Your task to perform on an android device: change alarm snooze length Image 0: 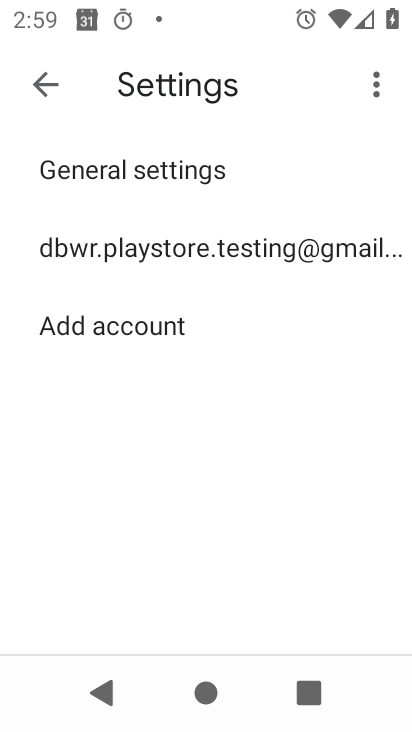
Step 0: press home button
Your task to perform on an android device: change alarm snooze length Image 1: 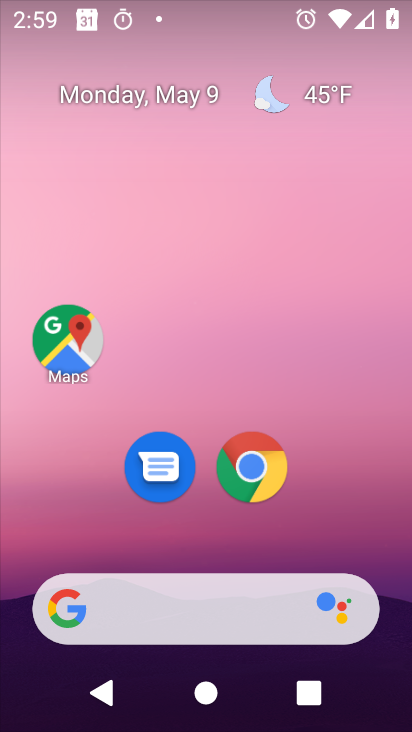
Step 1: drag from (342, 487) to (281, 81)
Your task to perform on an android device: change alarm snooze length Image 2: 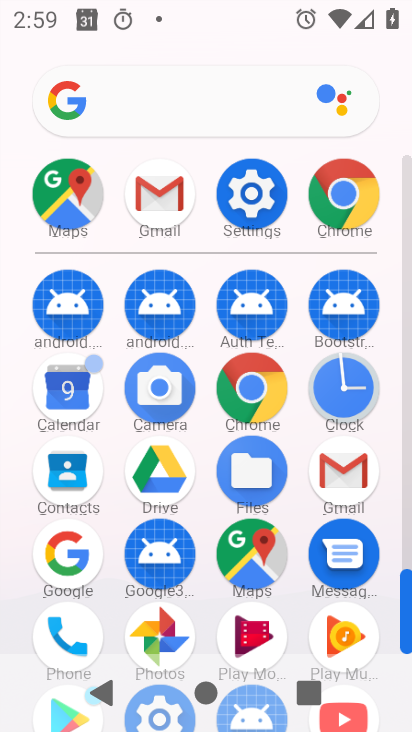
Step 2: click (330, 381)
Your task to perform on an android device: change alarm snooze length Image 3: 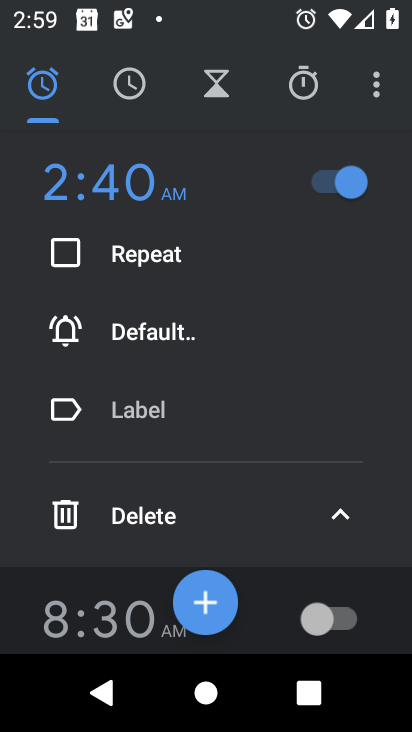
Step 3: drag from (381, 90) to (332, 116)
Your task to perform on an android device: change alarm snooze length Image 4: 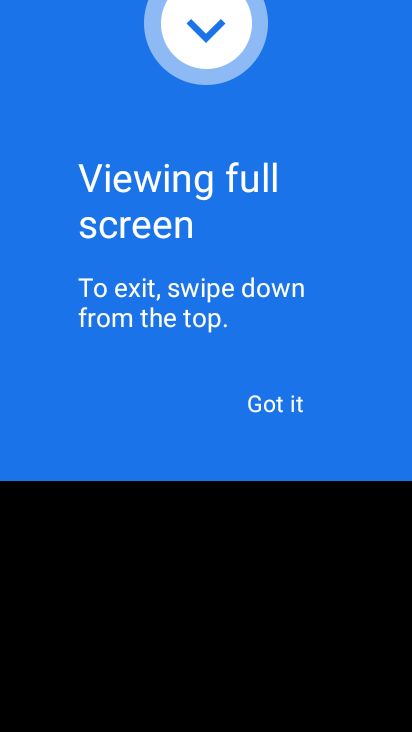
Step 4: press back button
Your task to perform on an android device: change alarm snooze length Image 5: 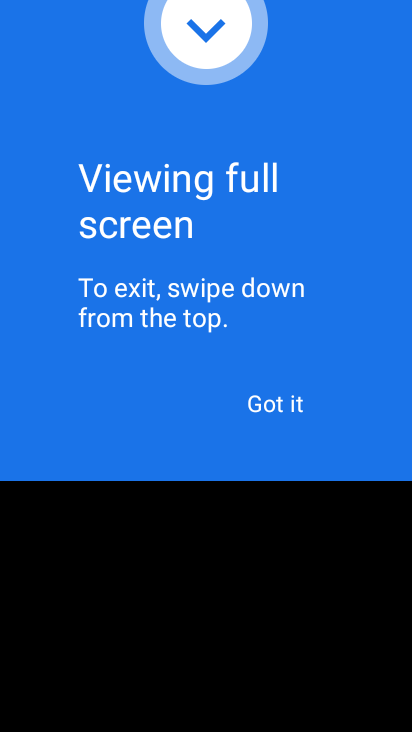
Step 5: press back button
Your task to perform on an android device: change alarm snooze length Image 6: 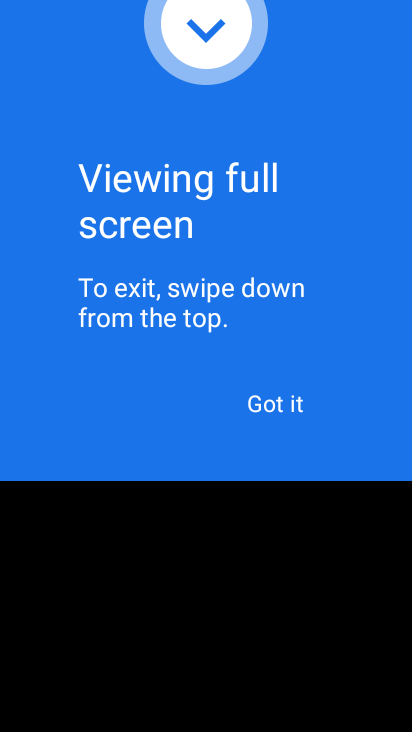
Step 6: click (281, 420)
Your task to perform on an android device: change alarm snooze length Image 7: 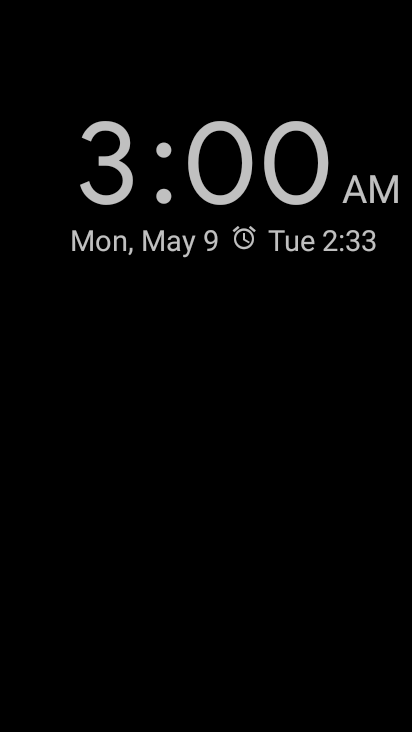
Step 7: press back button
Your task to perform on an android device: change alarm snooze length Image 8: 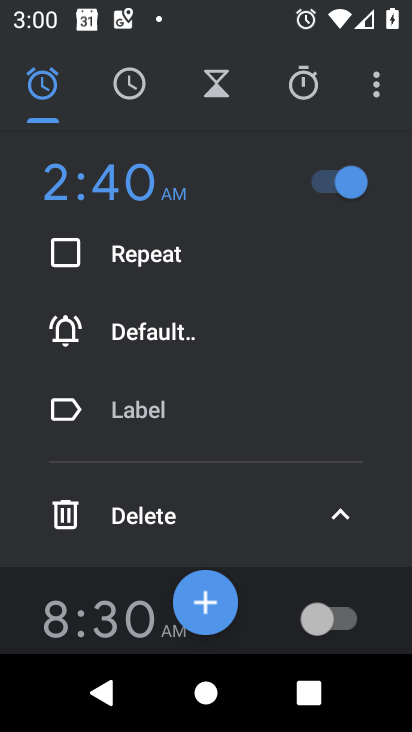
Step 8: click (380, 81)
Your task to perform on an android device: change alarm snooze length Image 9: 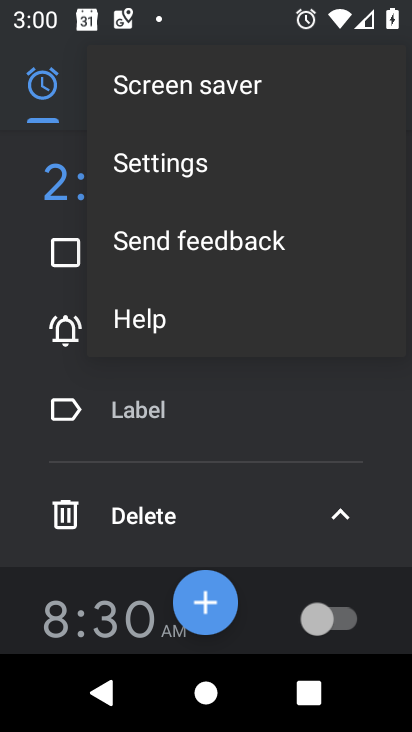
Step 9: click (164, 177)
Your task to perform on an android device: change alarm snooze length Image 10: 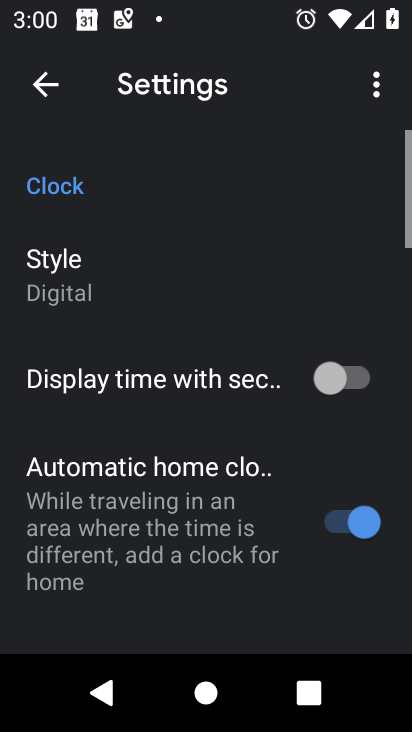
Step 10: drag from (239, 552) to (183, 84)
Your task to perform on an android device: change alarm snooze length Image 11: 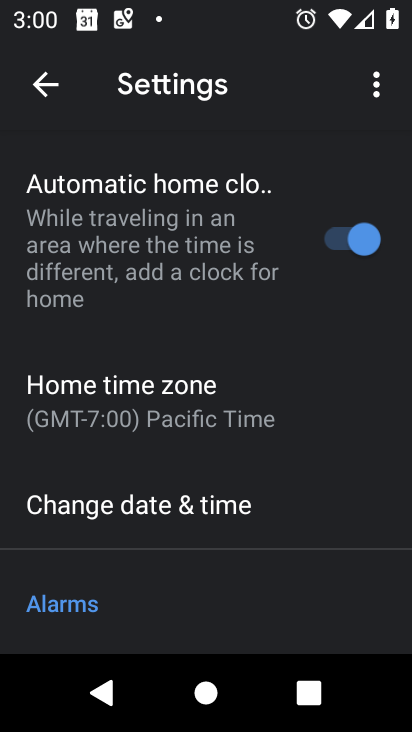
Step 11: drag from (307, 498) to (257, 185)
Your task to perform on an android device: change alarm snooze length Image 12: 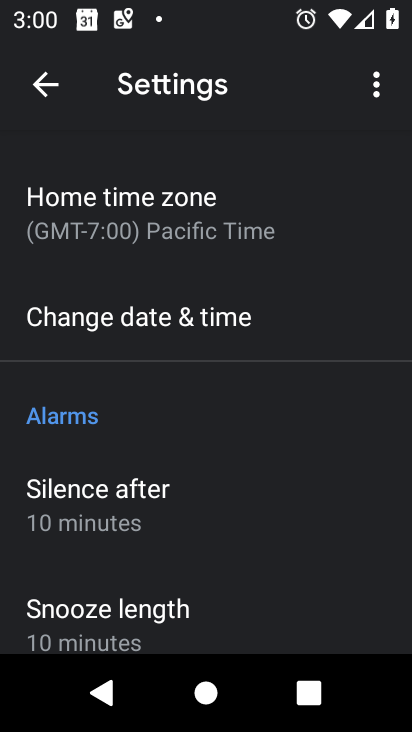
Step 12: drag from (211, 466) to (212, 202)
Your task to perform on an android device: change alarm snooze length Image 13: 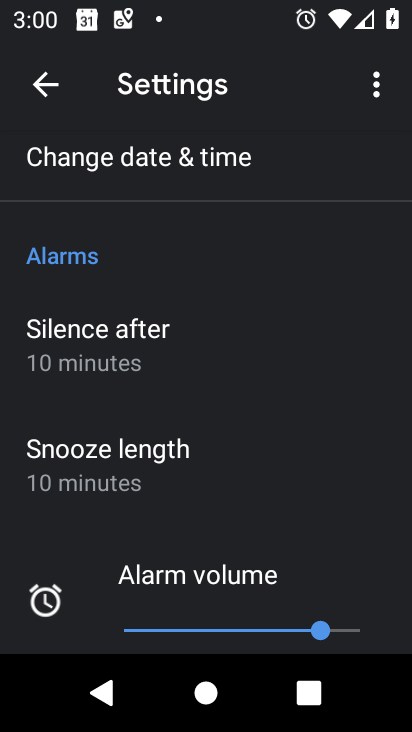
Step 13: click (155, 460)
Your task to perform on an android device: change alarm snooze length Image 14: 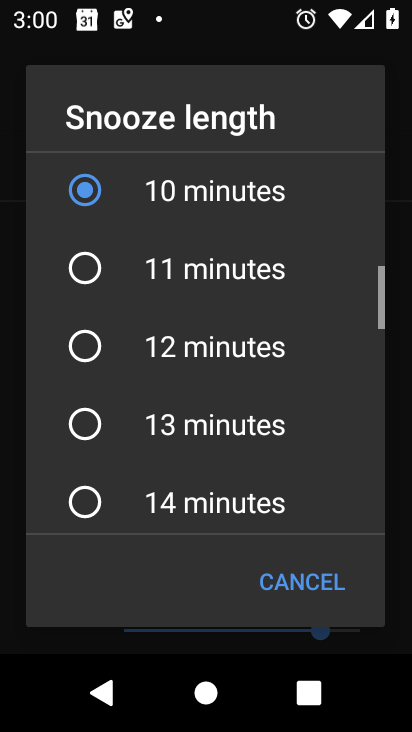
Step 14: click (232, 284)
Your task to perform on an android device: change alarm snooze length Image 15: 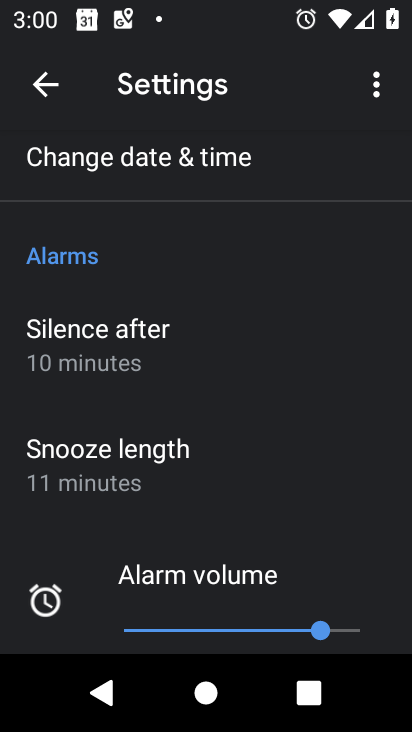
Step 15: task complete